Your task to perform on an android device: Open Google Maps and go to "Timeline" Image 0: 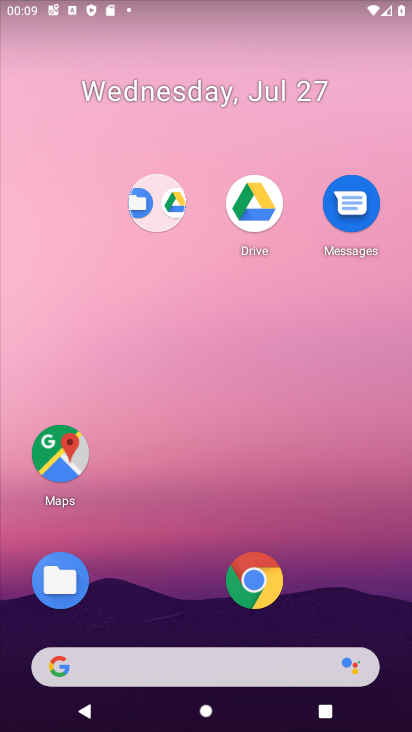
Step 0: click (45, 451)
Your task to perform on an android device: Open Google Maps and go to "Timeline" Image 1: 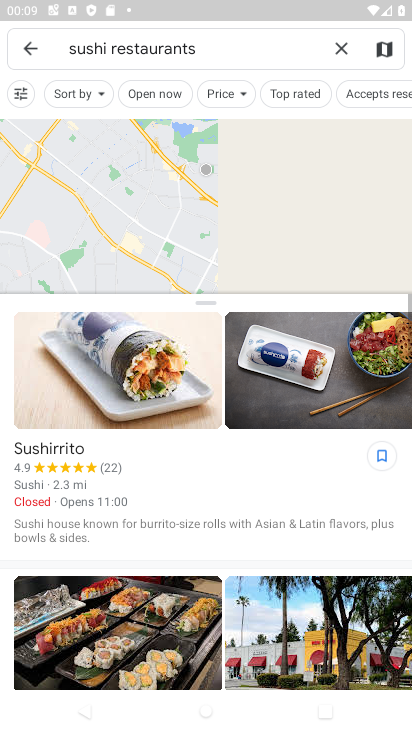
Step 1: click (23, 50)
Your task to perform on an android device: Open Google Maps and go to "Timeline" Image 2: 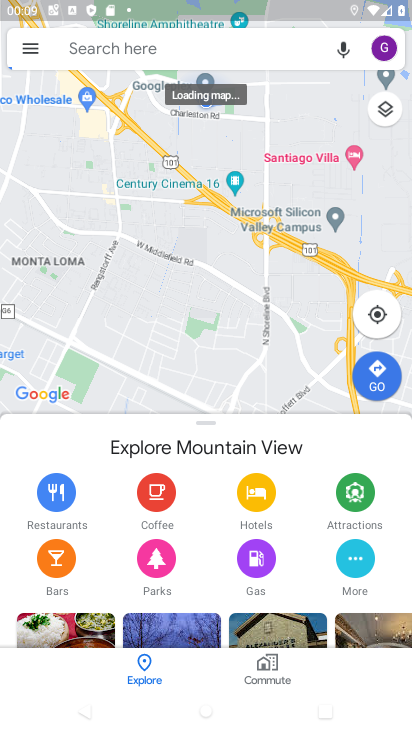
Step 2: click (23, 50)
Your task to perform on an android device: Open Google Maps and go to "Timeline" Image 3: 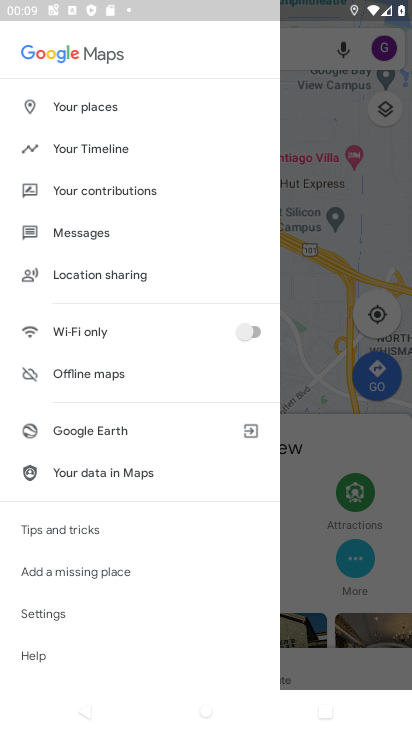
Step 3: click (109, 153)
Your task to perform on an android device: Open Google Maps and go to "Timeline" Image 4: 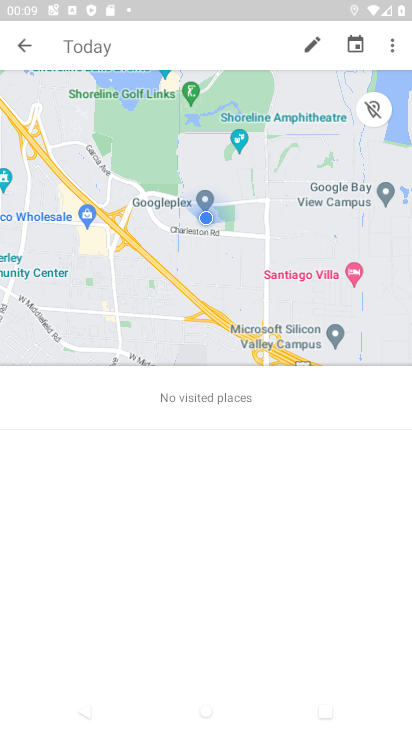
Step 4: task complete